Your task to perform on an android device: Open calendar and show me the fourth week of next month Image 0: 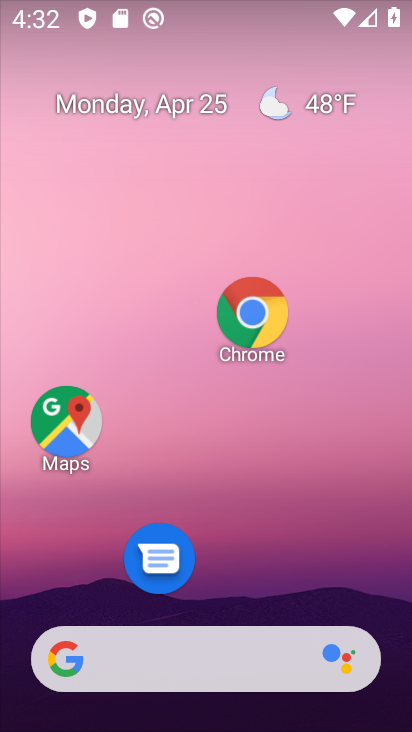
Step 0: drag from (348, 407) to (387, 39)
Your task to perform on an android device: Open calendar and show me the fourth week of next month Image 1: 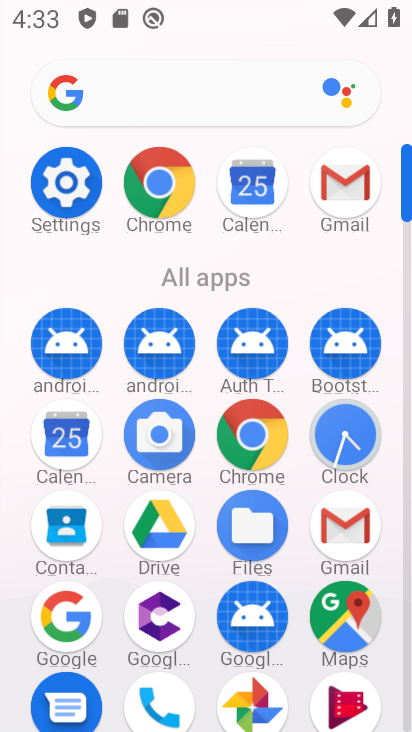
Step 1: click (52, 431)
Your task to perform on an android device: Open calendar and show me the fourth week of next month Image 2: 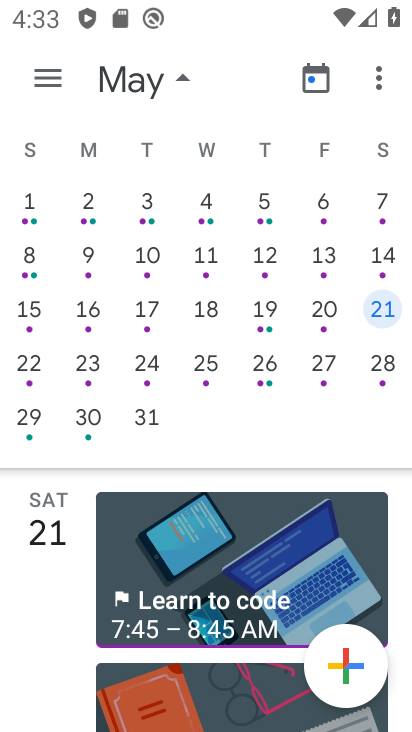
Step 2: drag from (298, 298) to (11, 307)
Your task to perform on an android device: Open calendar and show me the fourth week of next month Image 3: 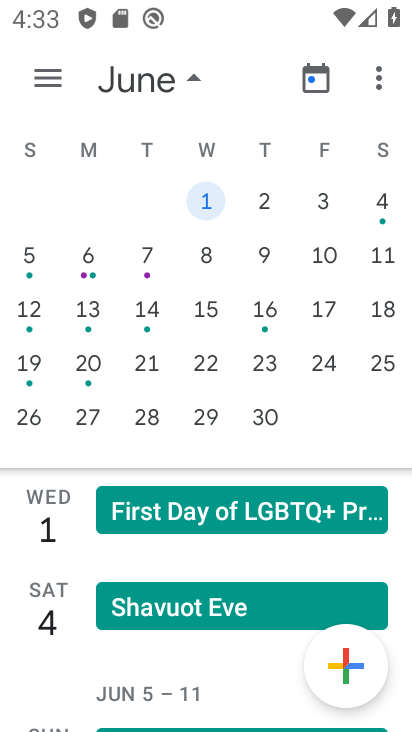
Step 3: click (152, 423)
Your task to perform on an android device: Open calendar and show me the fourth week of next month Image 4: 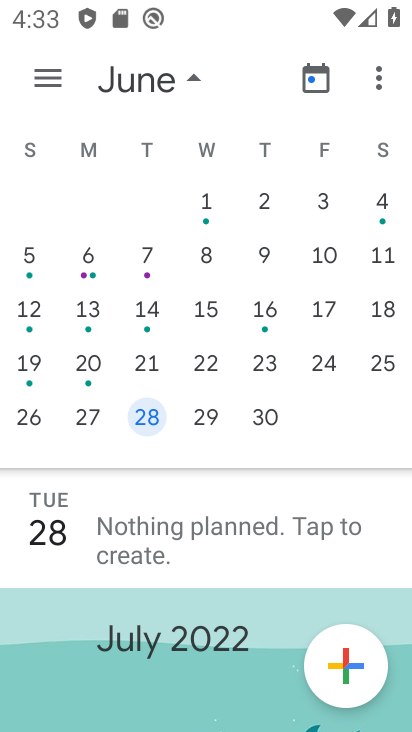
Step 4: task complete